Your task to perform on an android device: Open maps Image 0: 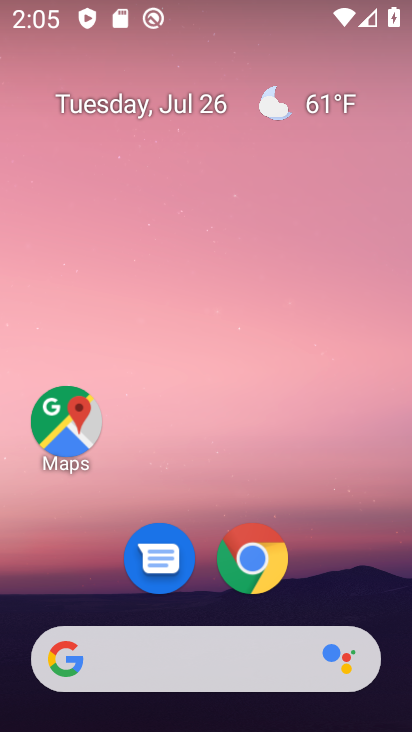
Step 0: click (71, 405)
Your task to perform on an android device: Open maps Image 1: 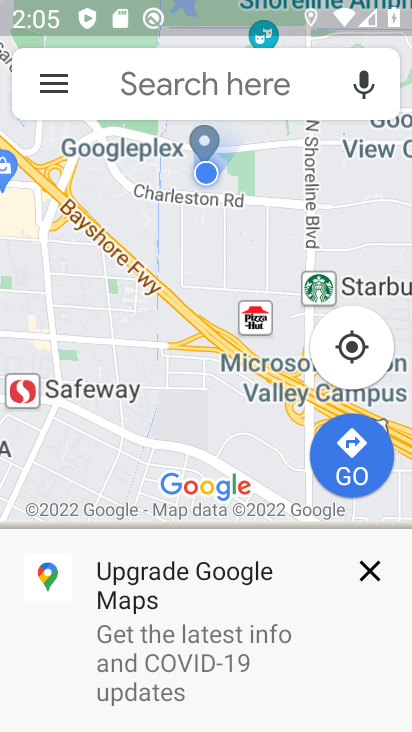
Step 1: task complete